Your task to perform on an android device: turn vacation reply on in the gmail app Image 0: 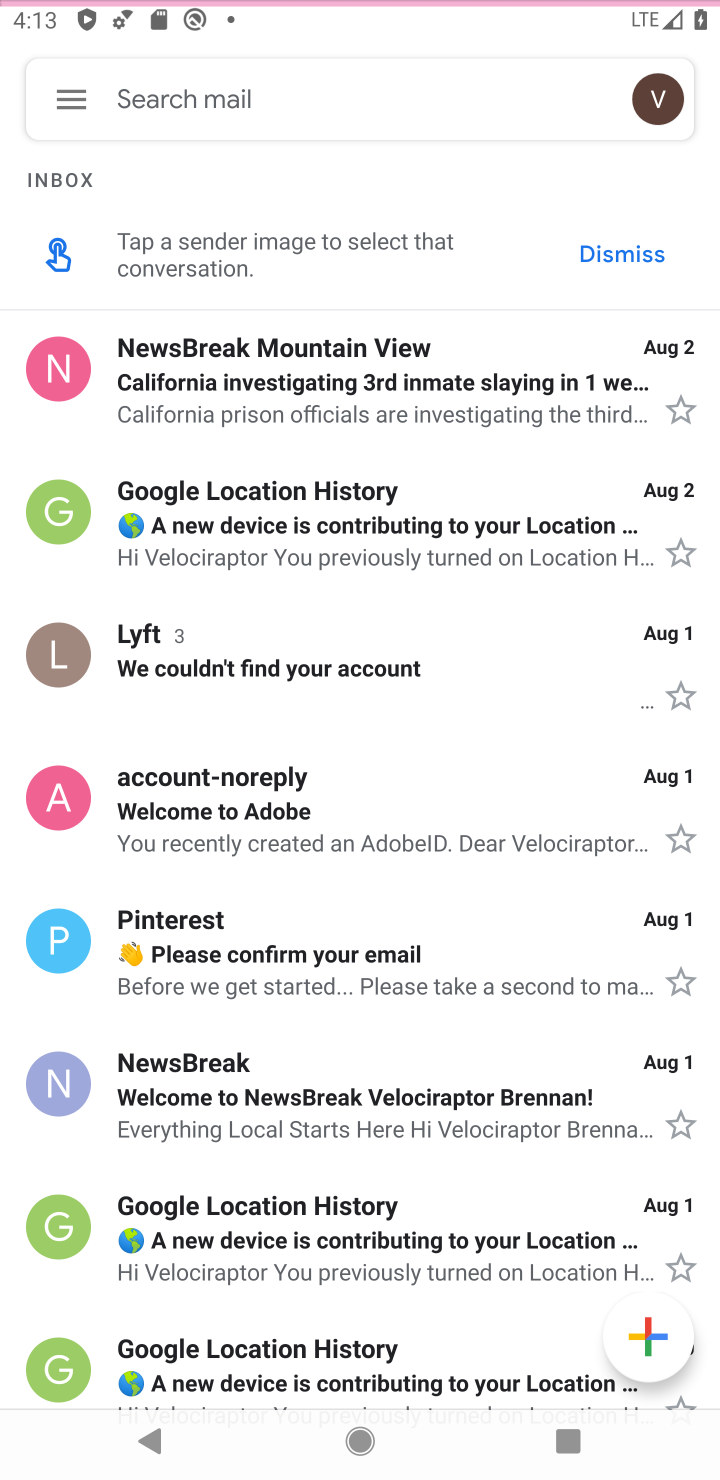
Step 0: press back button
Your task to perform on an android device: turn vacation reply on in the gmail app Image 1: 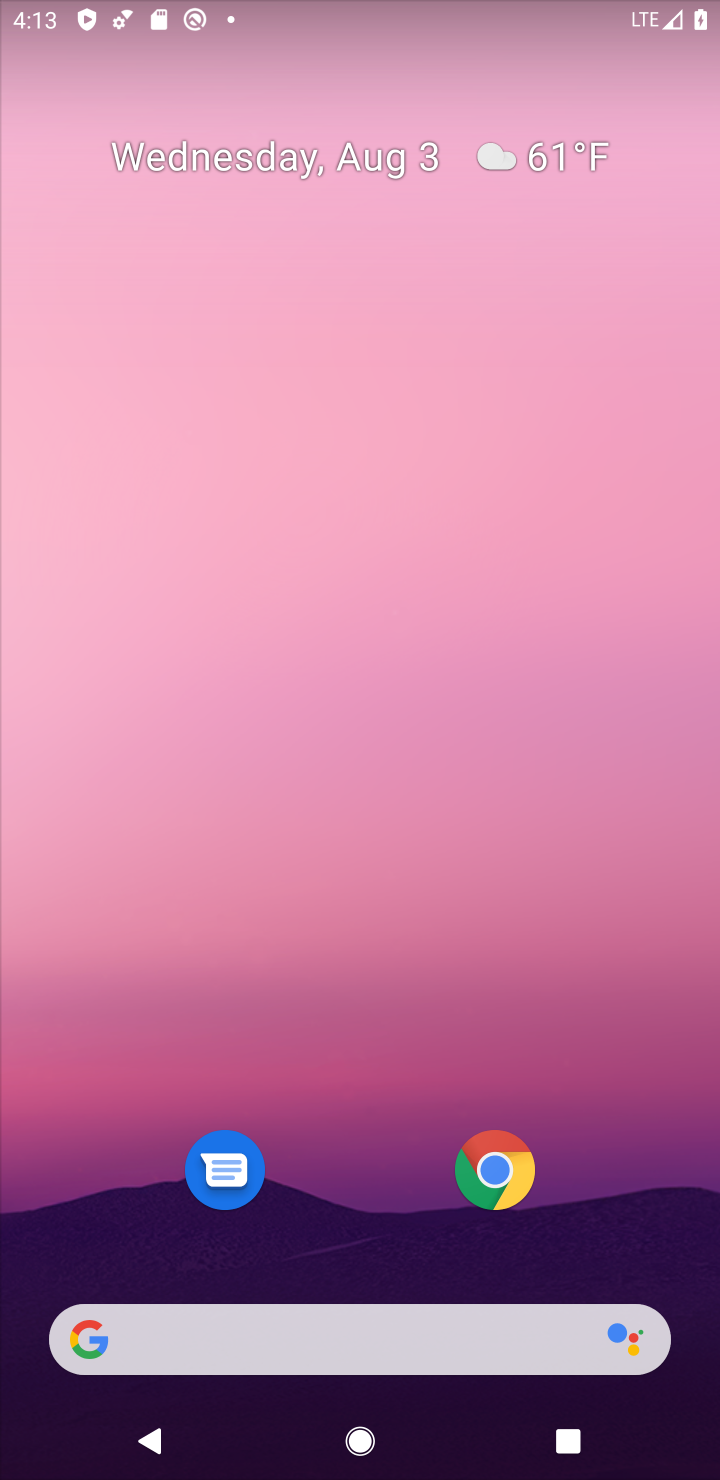
Step 1: drag from (333, 659) to (312, 86)
Your task to perform on an android device: turn vacation reply on in the gmail app Image 2: 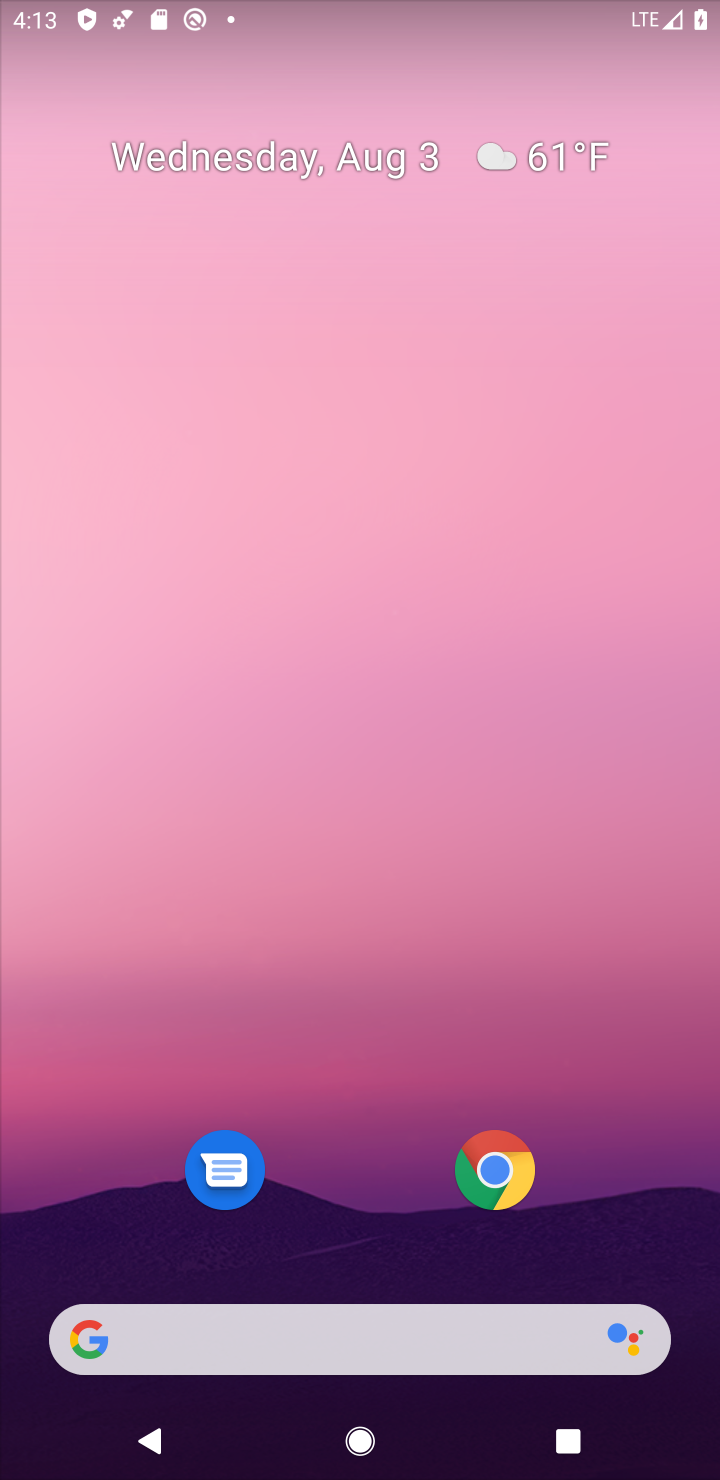
Step 2: drag from (354, 236) to (343, 48)
Your task to perform on an android device: turn vacation reply on in the gmail app Image 3: 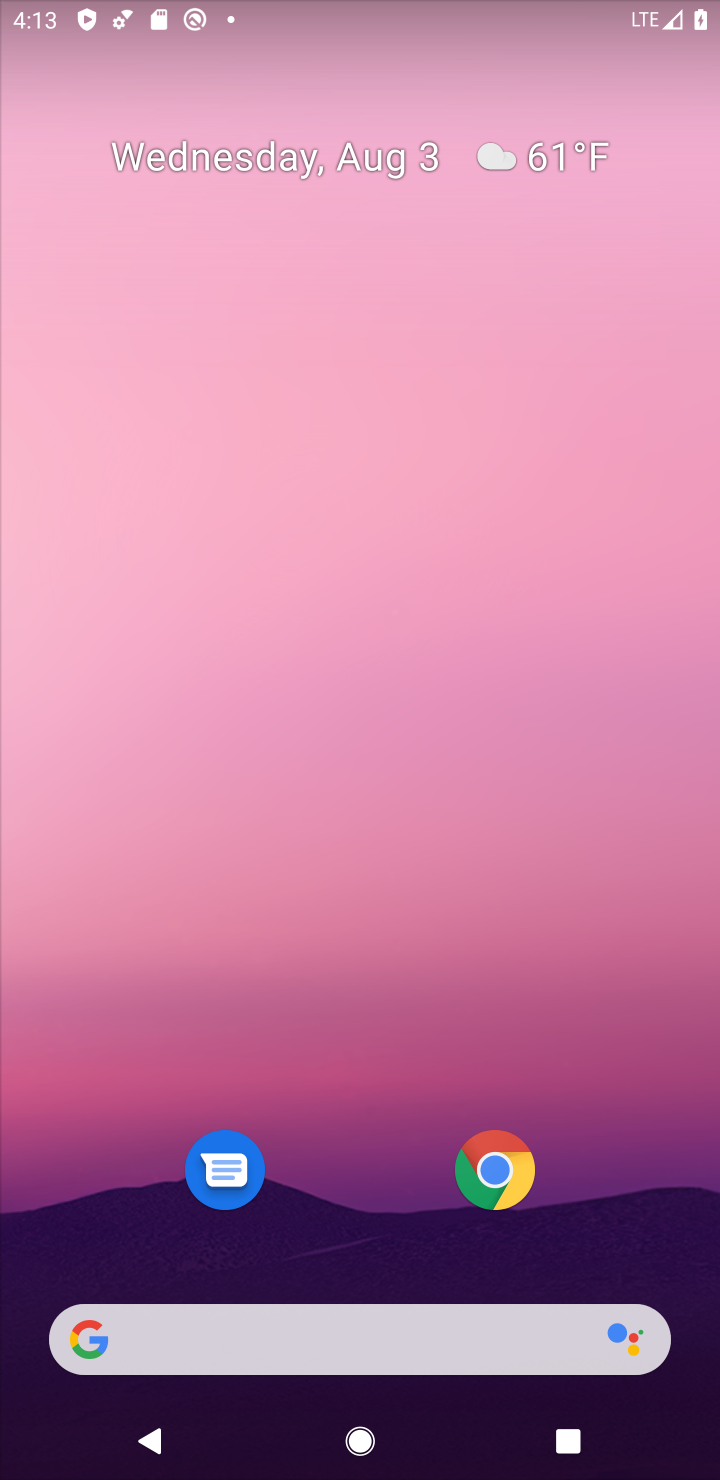
Step 3: drag from (328, 420) to (383, 25)
Your task to perform on an android device: turn vacation reply on in the gmail app Image 4: 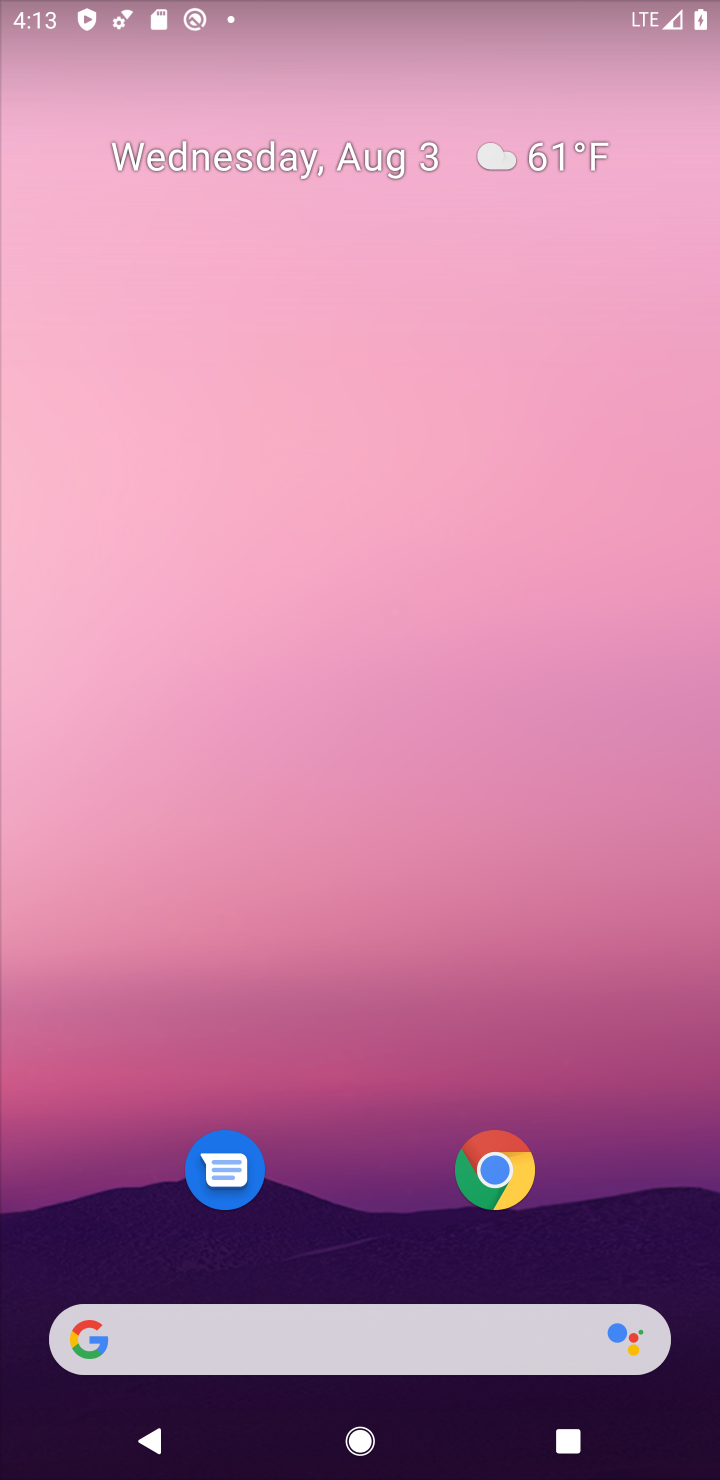
Step 4: click (323, 172)
Your task to perform on an android device: turn vacation reply on in the gmail app Image 5: 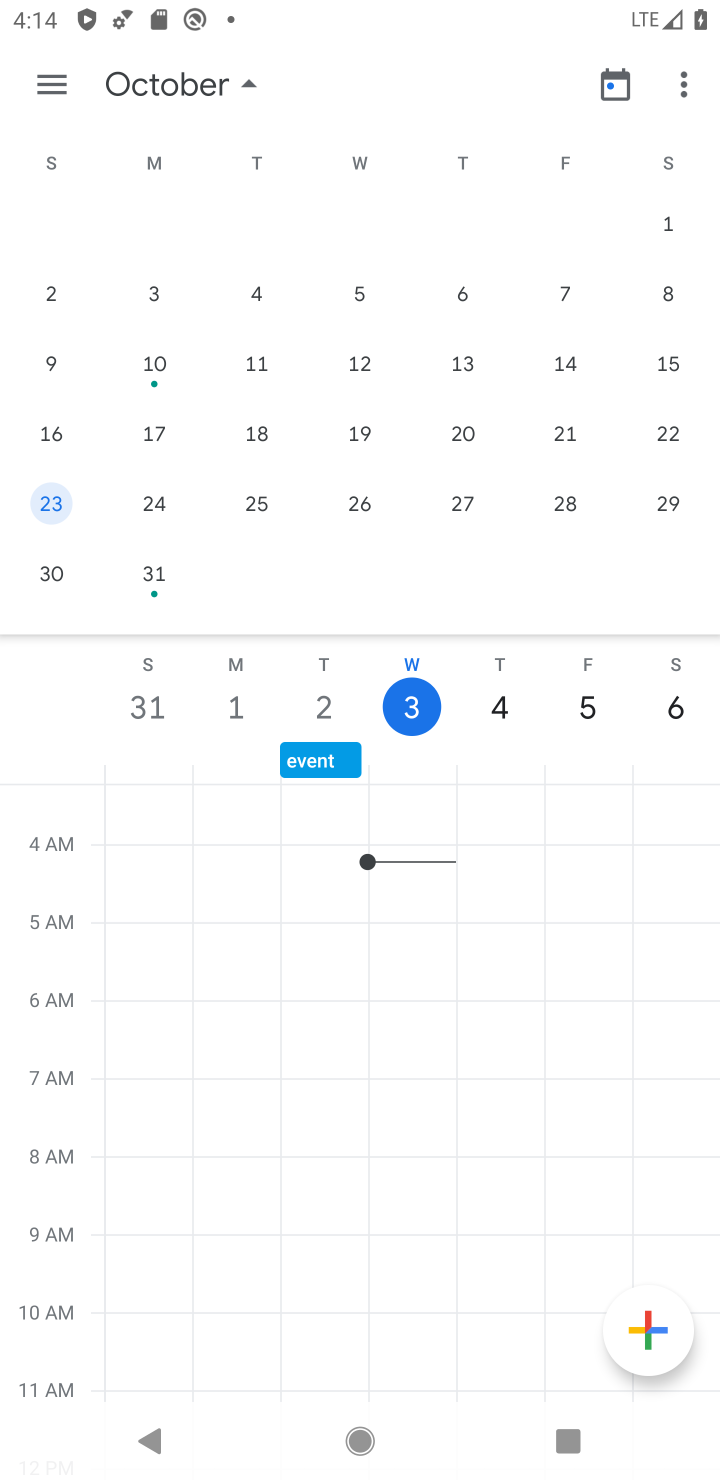
Step 5: press back button
Your task to perform on an android device: turn vacation reply on in the gmail app Image 6: 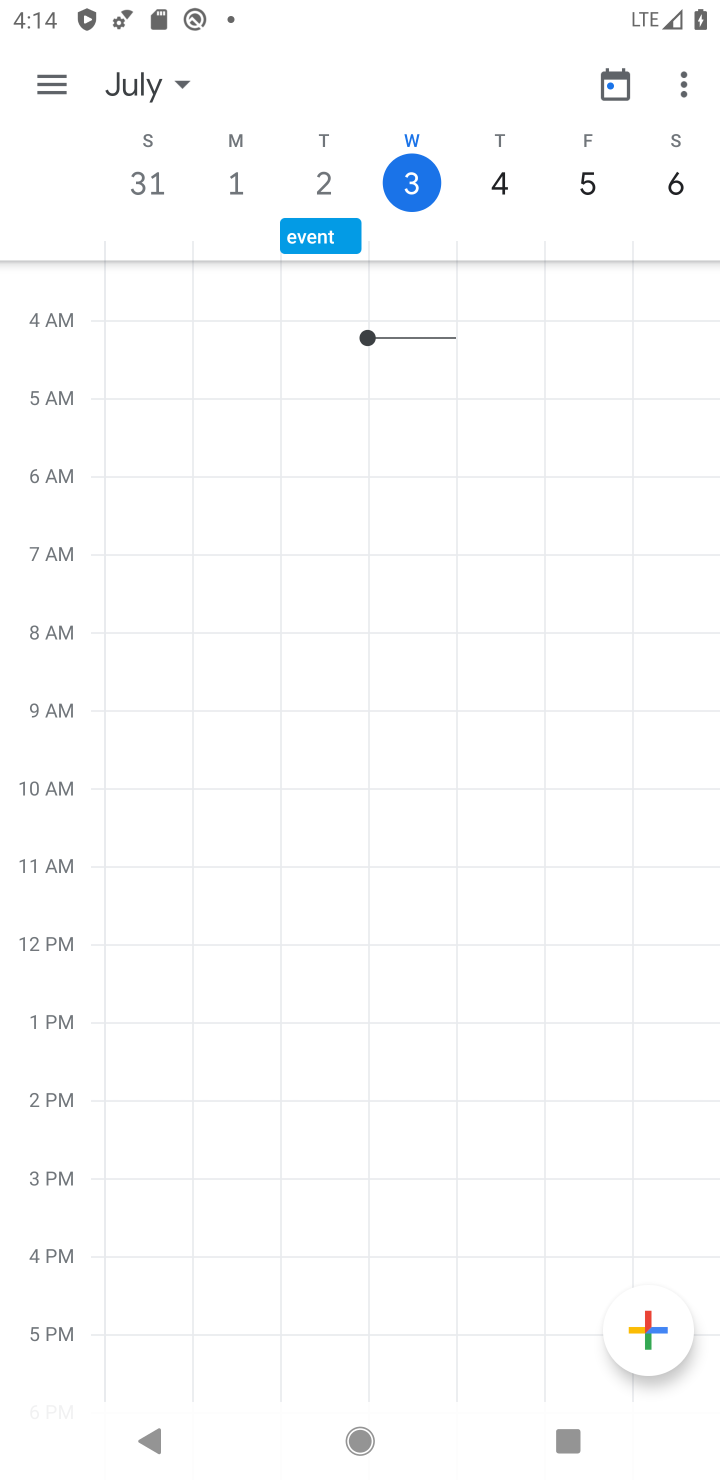
Step 6: press back button
Your task to perform on an android device: turn vacation reply on in the gmail app Image 7: 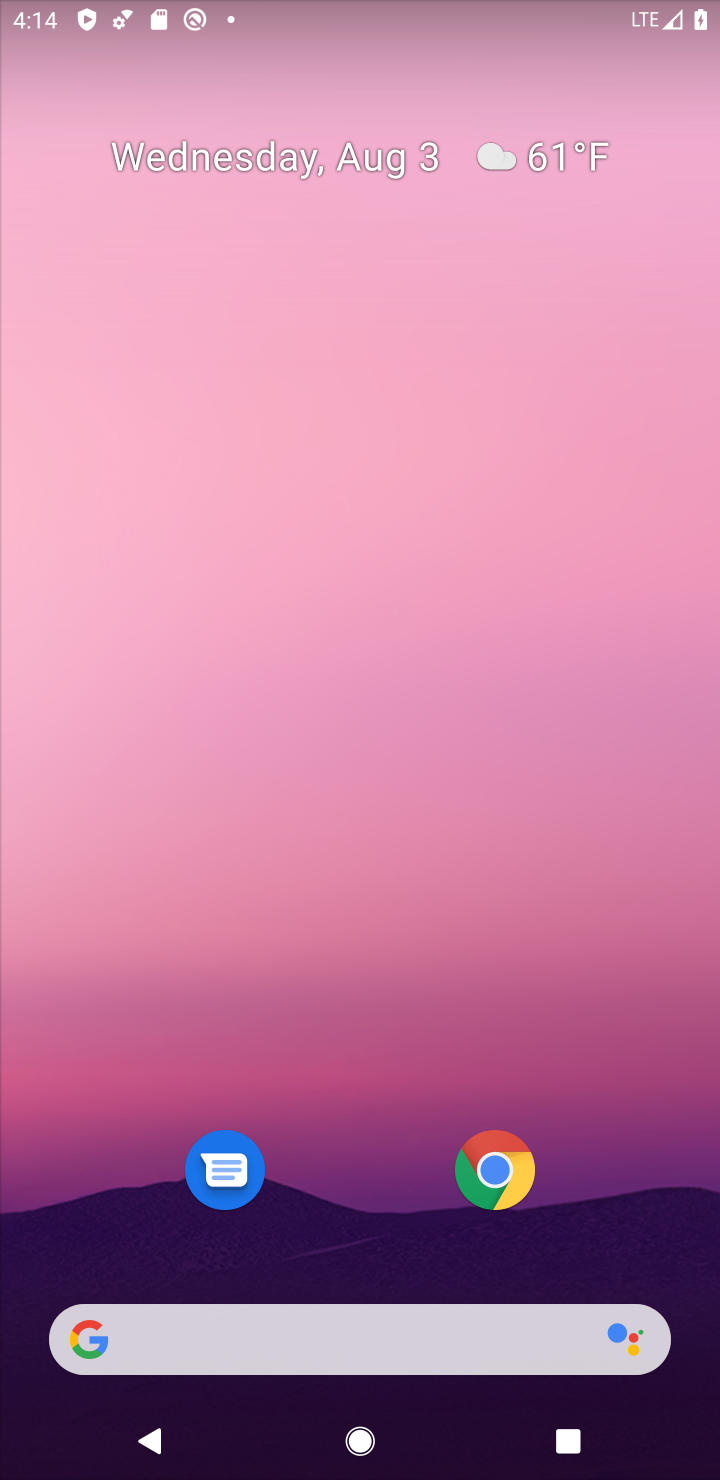
Step 7: drag from (297, 1247) to (385, 387)
Your task to perform on an android device: turn vacation reply on in the gmail app Image 8: 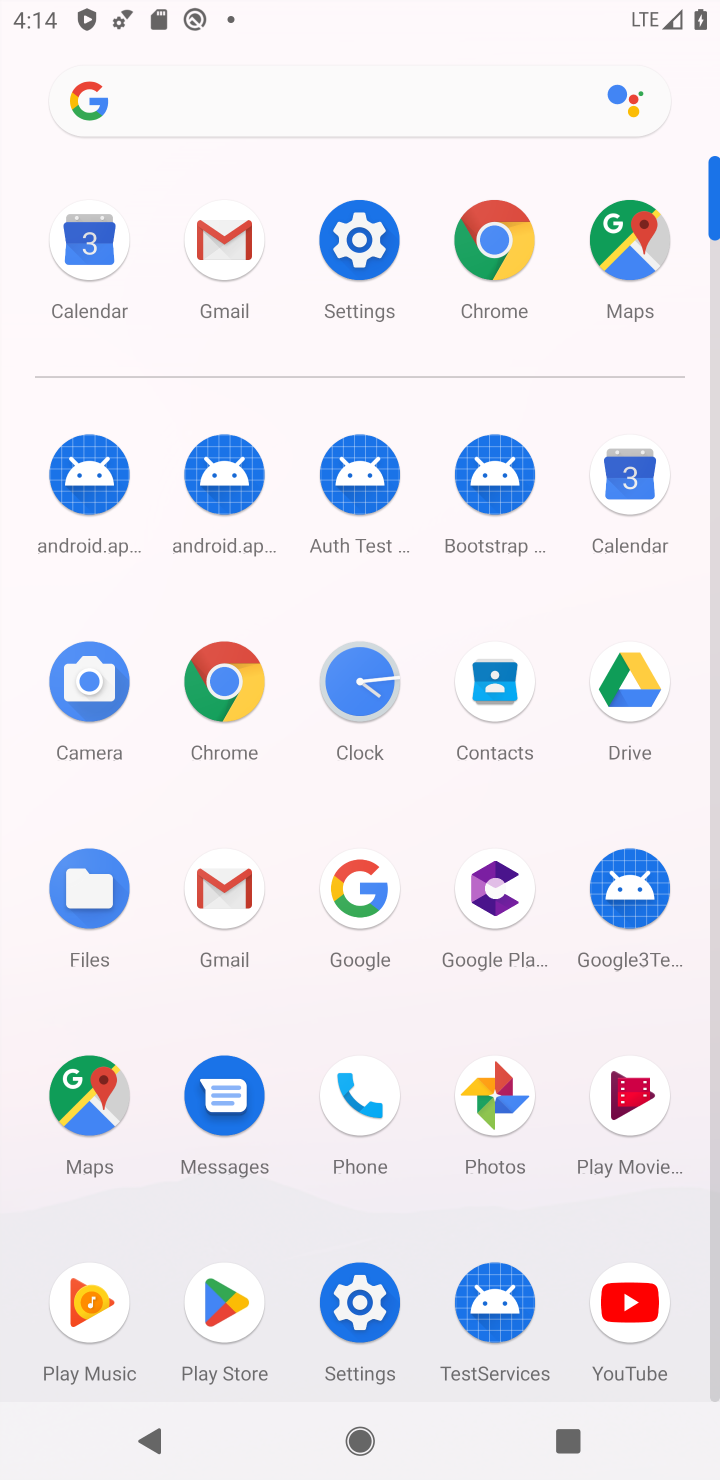
Step 8: click (215, 251)
Your task to perform on an android device: turn vacation reply on in the gmail app Image 9: 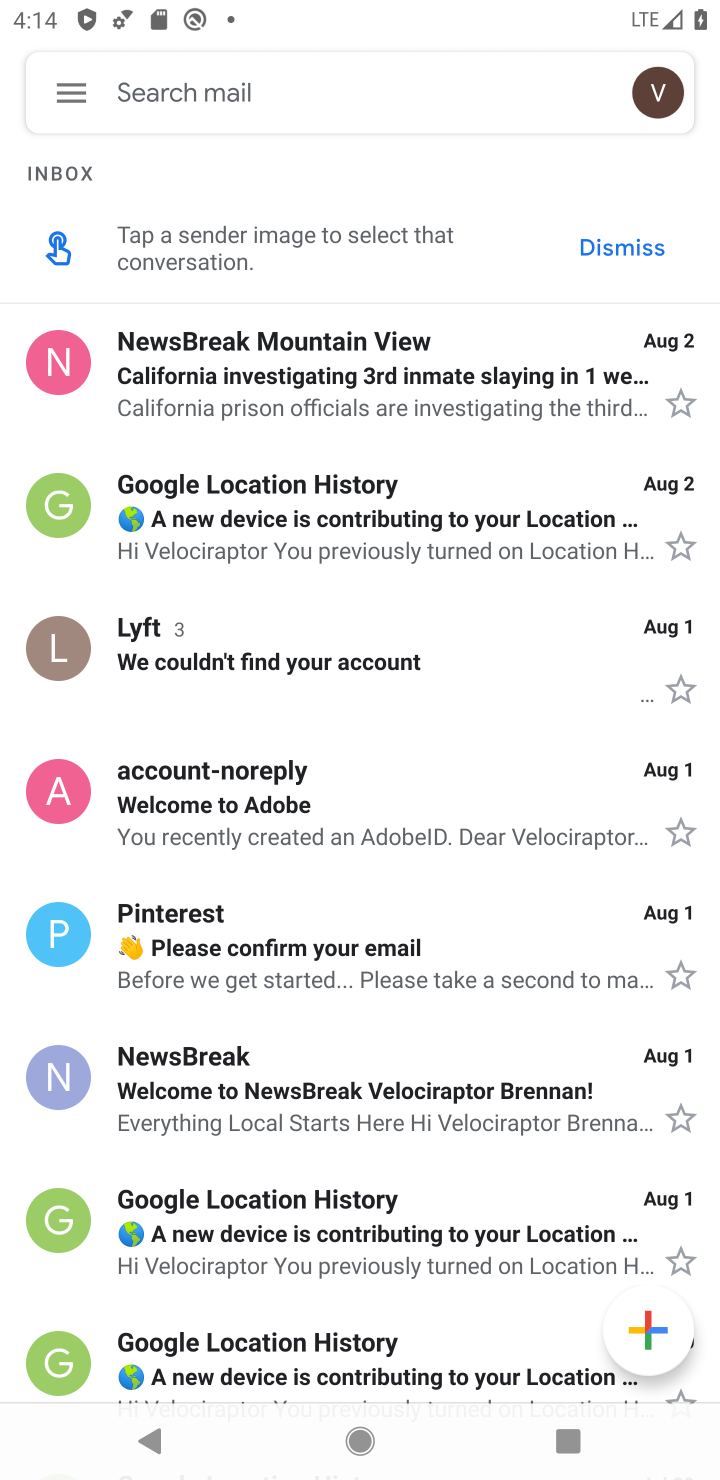
Step 9: click (86, 96)
Your task to perform on an android device: turn vacation reply on in the gmail app Image 10: 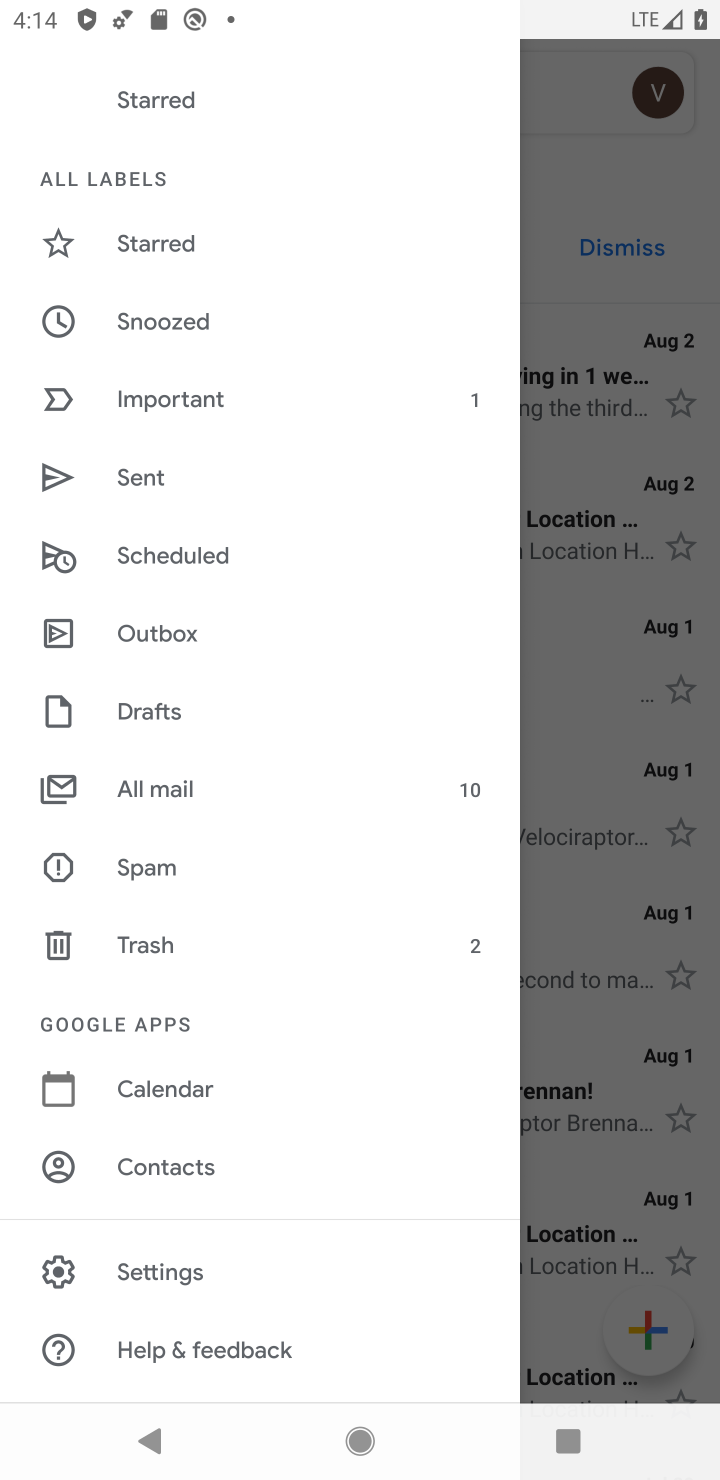
Step 10: click (180, 1277)
Your task to perform on an android device: turn vacation reply on in the gmail app Image 11: 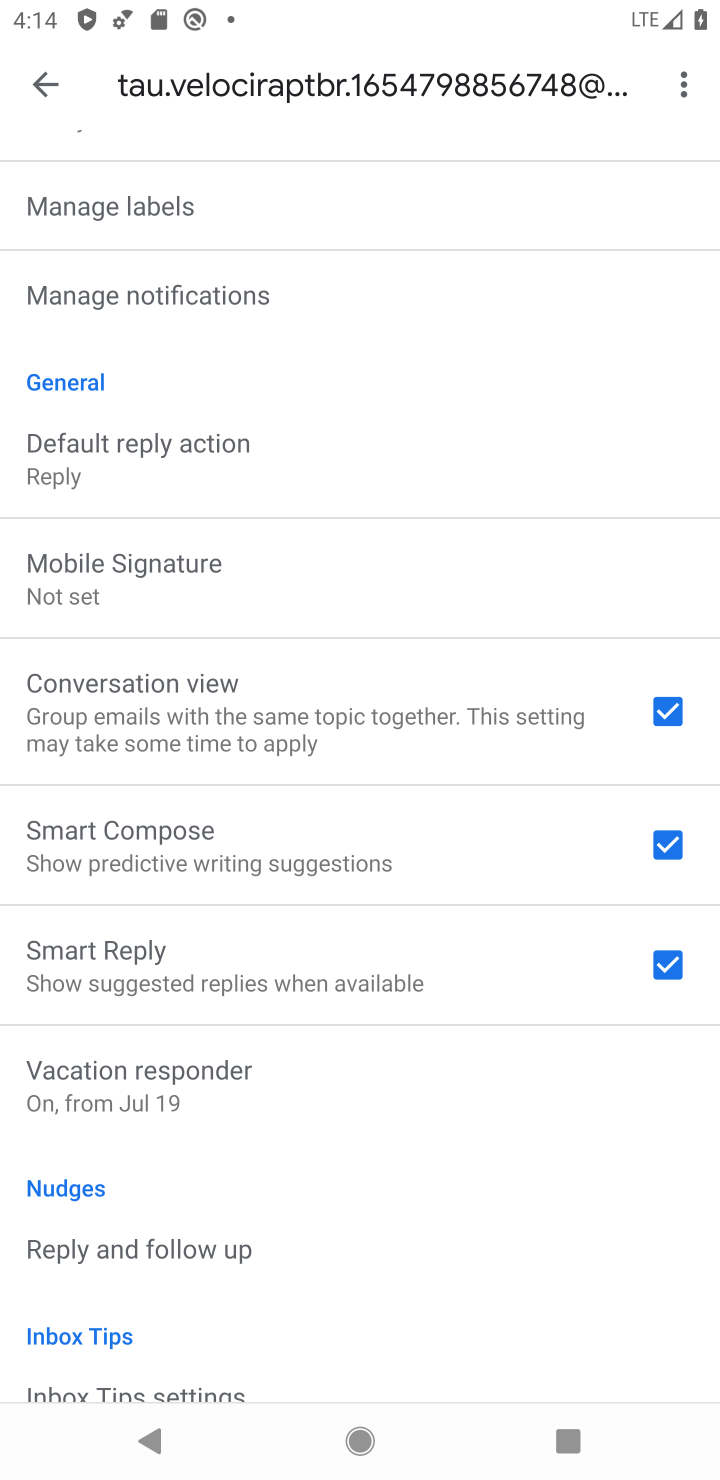
Step 11: click (262, 1102)
Your task to perform on an android device: turn vacation reply on in the gmail app Image 12: 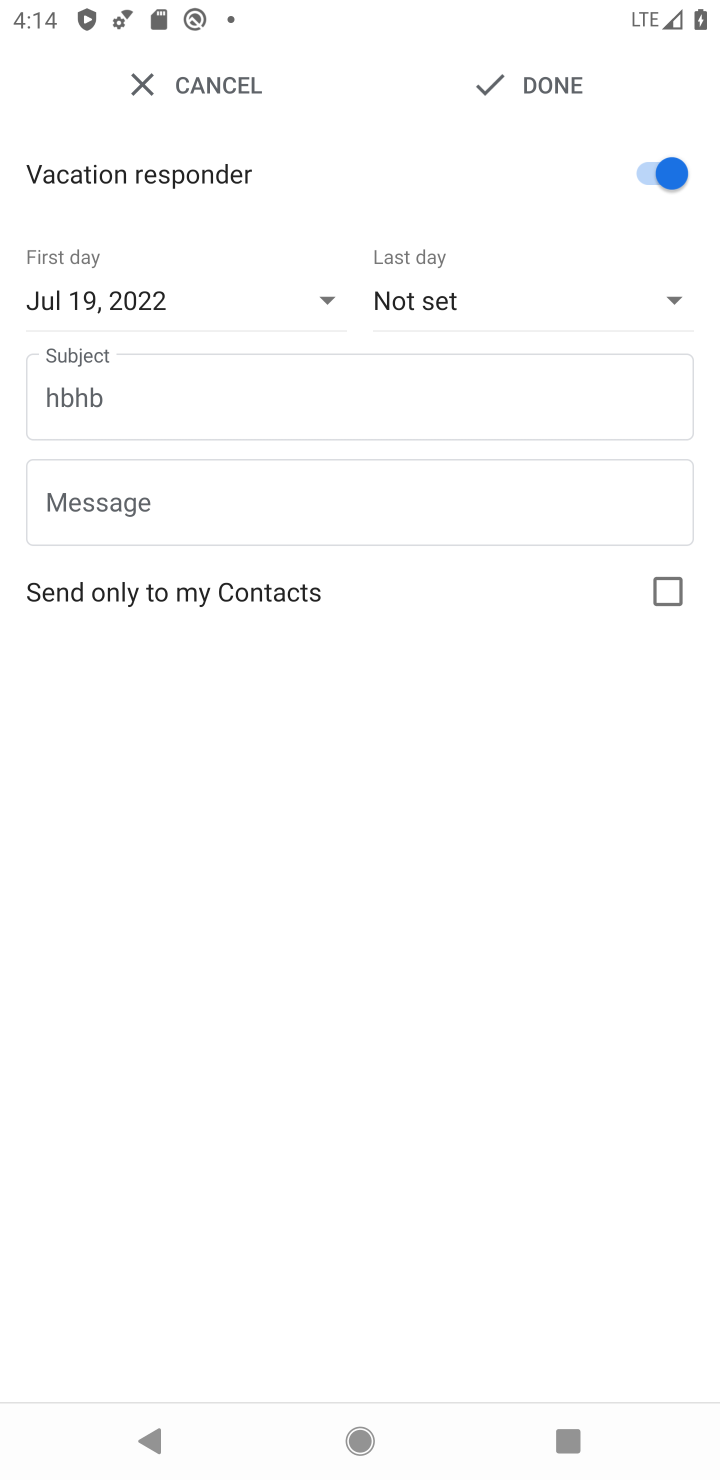
Step 12: task complete